Your task to perform on an android device: change notification settings in the gmail app Image 0: 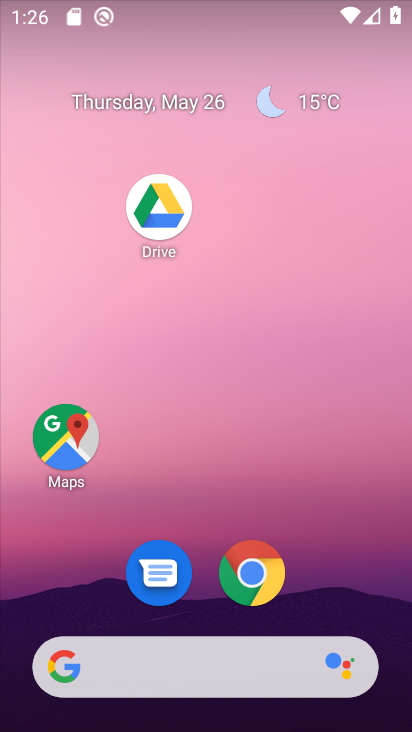
Step 0: drag from (339, 609) to (261, 33)
Your task to perform on an android device: change notification settings in the gmail app Image 1: 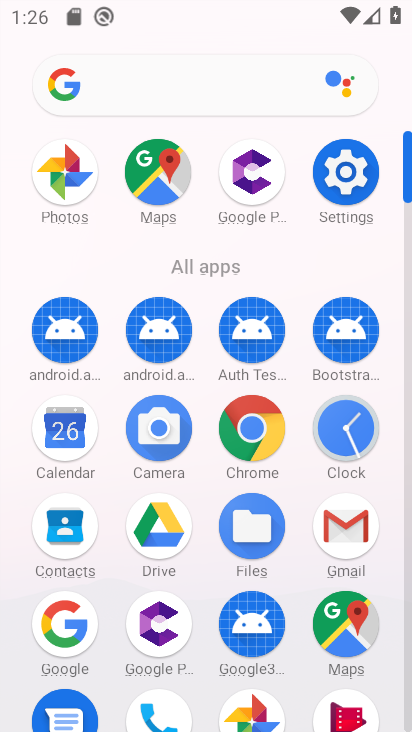
Step 1: click (353, 521)
Your task to perform on an android device: change notification settings in the gmail app Image 2: 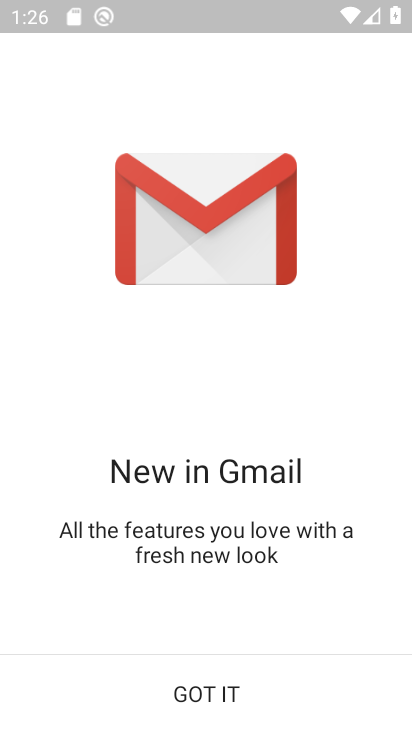
Step 2: click (250, 708)
Your task to perform on an android device: change notification settings in the gmail app Image 3: 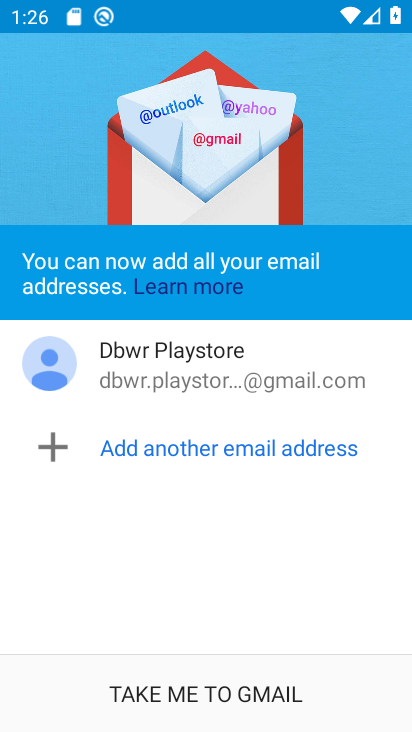
Step 3: click (217, 675)
Your task to perform on an android device: change notification settings in the gmail app Image 4: 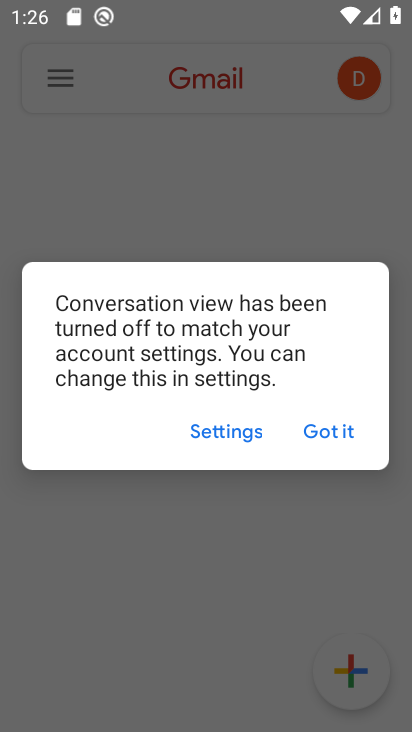
Step 4: click (315, 413)
Your task to perform on an android device: change notification settings in the gmail app Image 5: 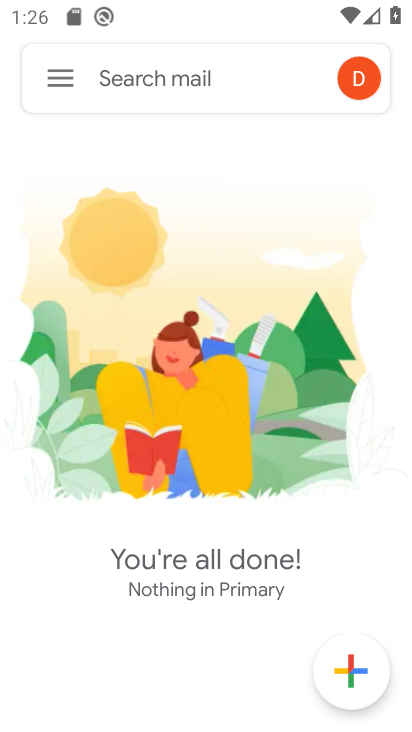
Step 5: click (72, 81)
Your task to perform on an android device: change notification settings in the gmail app Image 6: 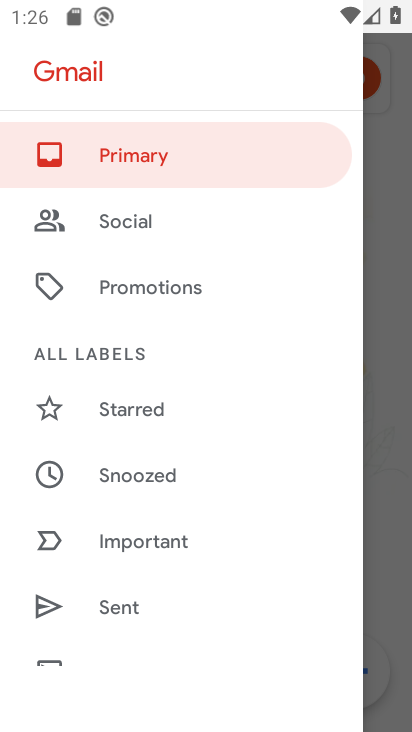
Step 6: drag from (193, 622) to (161, 183)
Your task to perform on an android device: change notification settings in the gmail app Image 7: 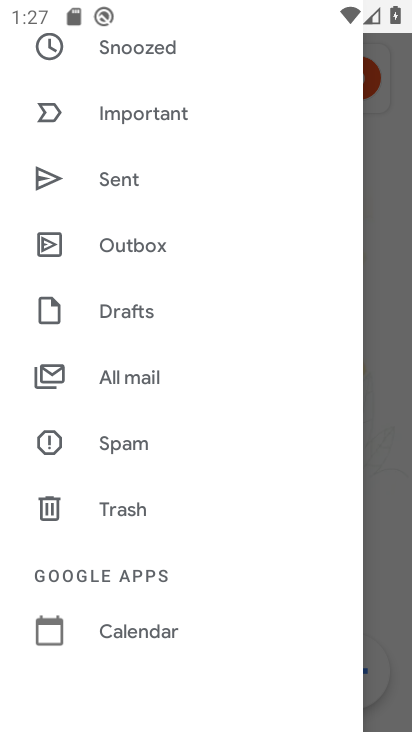
Step 7: drag from (153, 660) to (141, 382)
Your task to perform on an android device: change notification settings in the gmail app Image 8: 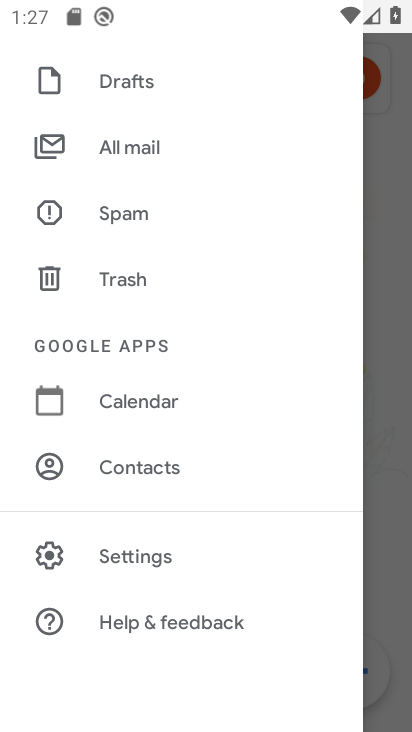
Step 8: click (146, 554)
Your task to perform on an android device: change notification settings in the gmail app Image 9: 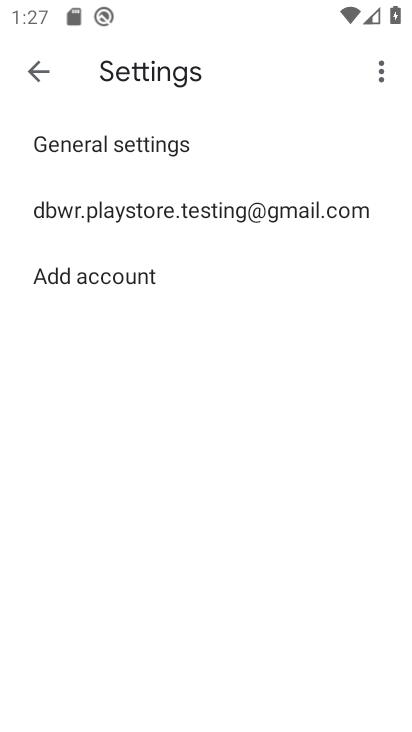
Step 9: click (144, 212)
Your task to perform on an android device: change notification settings in the gmail app Image 10: 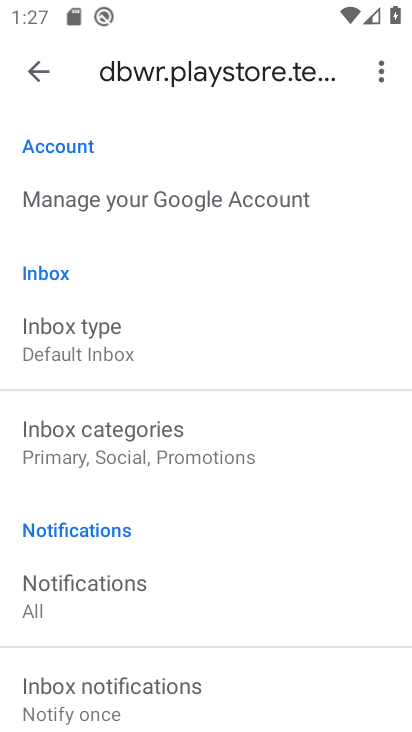
Step 10: click (161, 603)
Your task to perform on an android device: change notification settings in the gmail app Image 11: 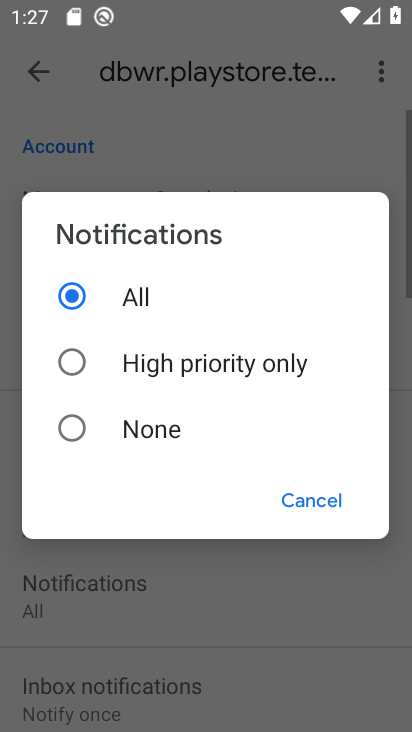
Step 11: click (157, 390)
Your task to perform on an android device: change notification settings in the gmail app Image 12: 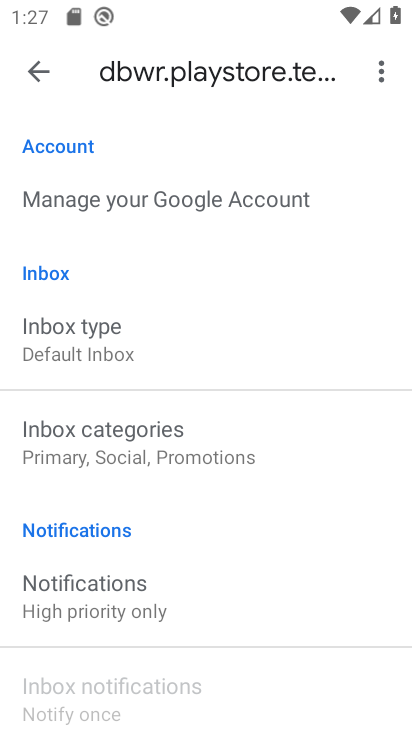
Step 12: task complete